Your task to perform on an android device: Open maps Image 0: 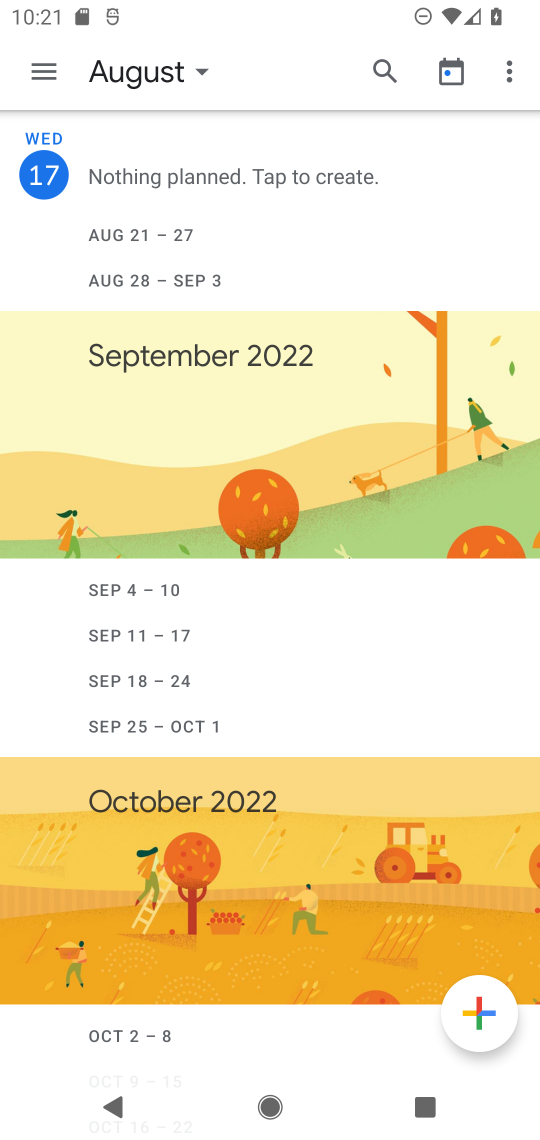
Step 0: press home button
Your task to perform on an android device: Open maps Image 1: 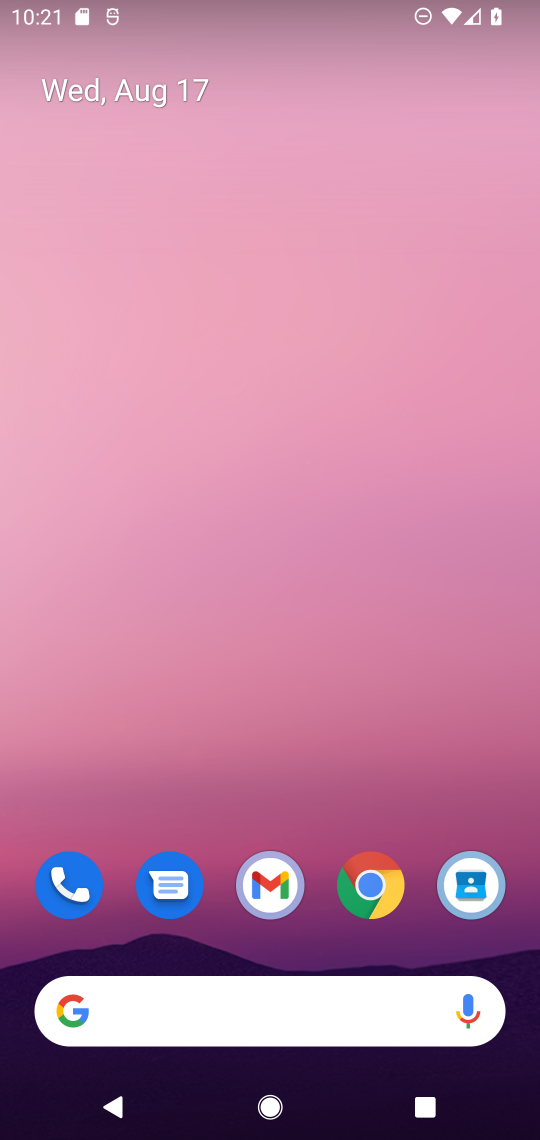
Step 1: drag from (425, 947) to (411, 113)
Your task to perform on an android device: Open maps Image 2: 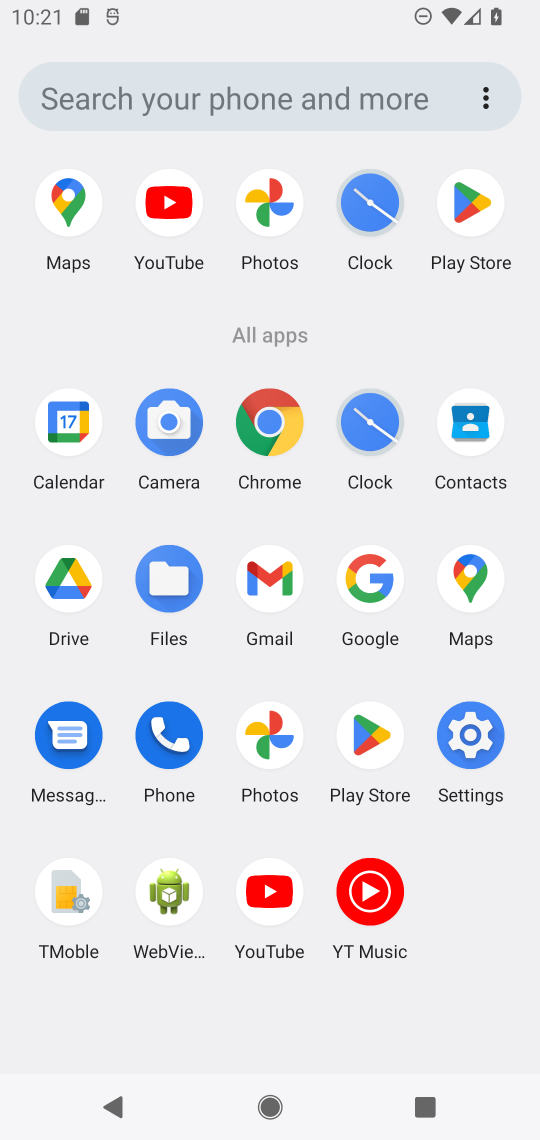
Step 2: click (470, 574)
Your task to perform on an android device: Open maps Image 3: 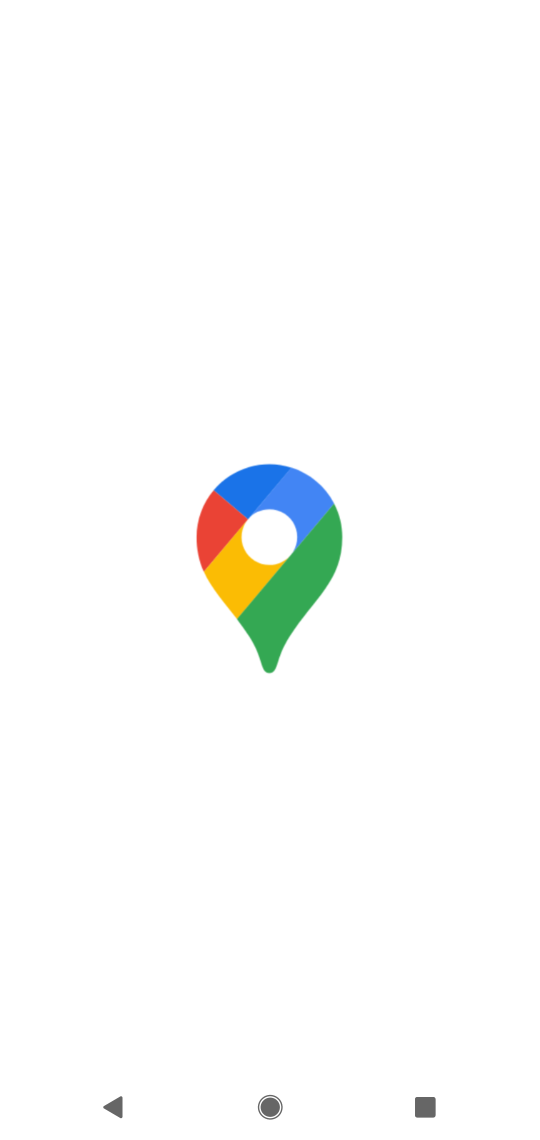
Step 3: task complete